Your task to perform on an android device: Go to privacy settings Image 0: 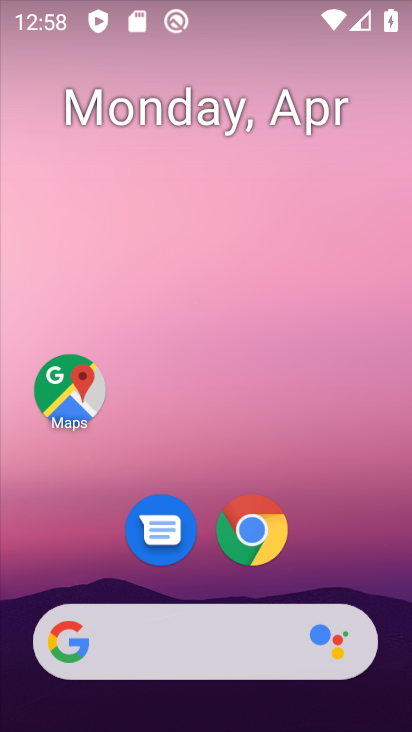
Step 0: click (253, 530)
Your task to perform on an android device: Go to privacy settings Image 1: 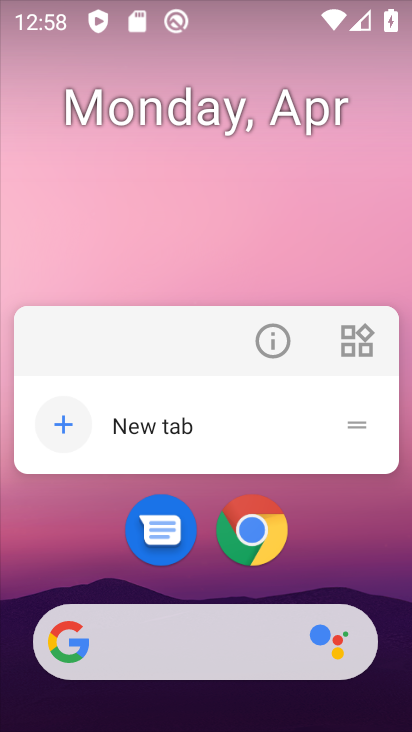
Step 1: click (261, 533)
Your task to perform on an android device: Go to privacy settings Image 2: 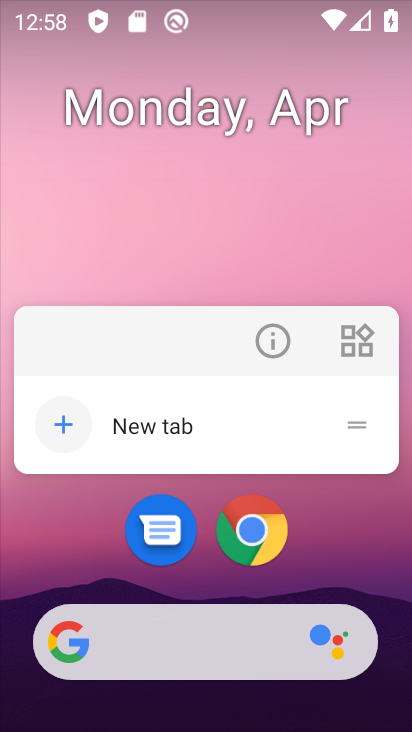
Step 2: click (260, 548)
Your task to perform on an android device: Go to privacy settings Image 3: 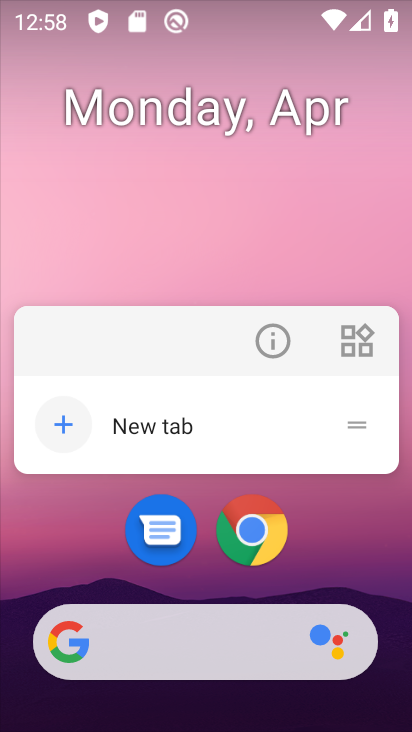
Step 3: click (268, 543)
Your task to perform on an android device: Go to privacy settings Image 4: 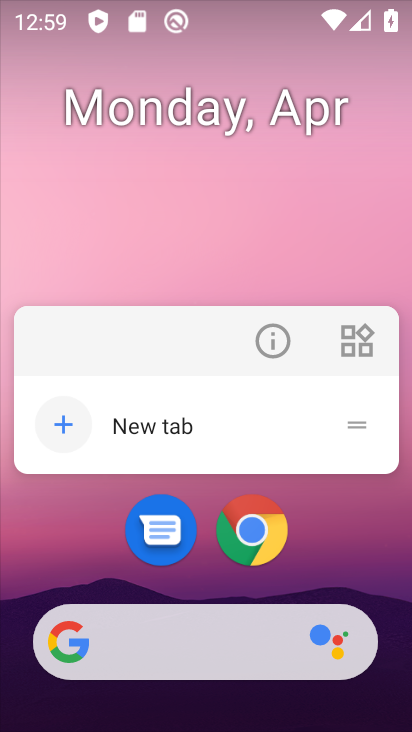
Step 4: click (267, 543)
Your task to perform on an android device: Go to privacy settings Image 5: 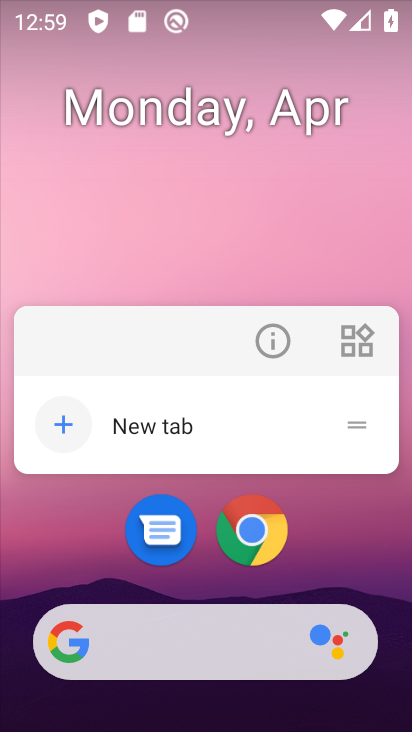
Step 5: click (267, 544)
Your task to perform on an android device: Go to privacy settings Image 6: 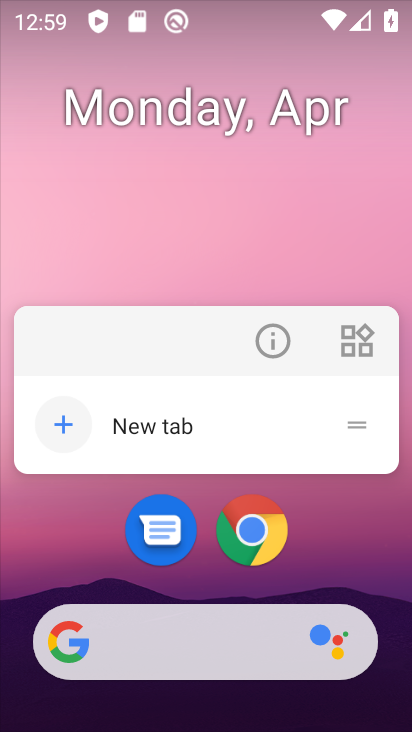
Step 6: click (265, 546)
Your task to perform on an android device: Go to privacy settings Image 7: 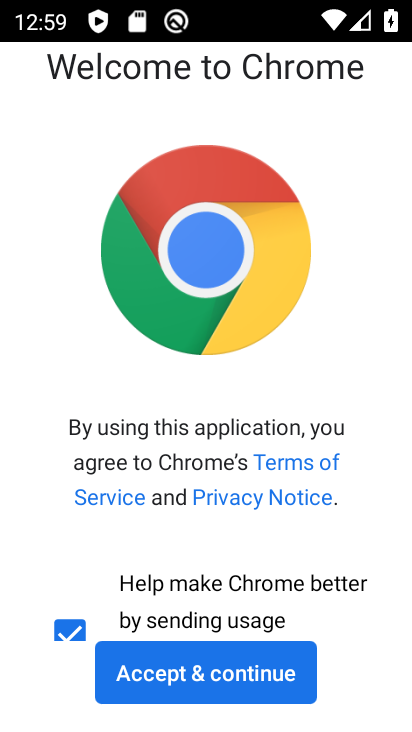
Step 7: click (247, 682)
Your task to perform on an android device: Go to privacy settings Image 8: 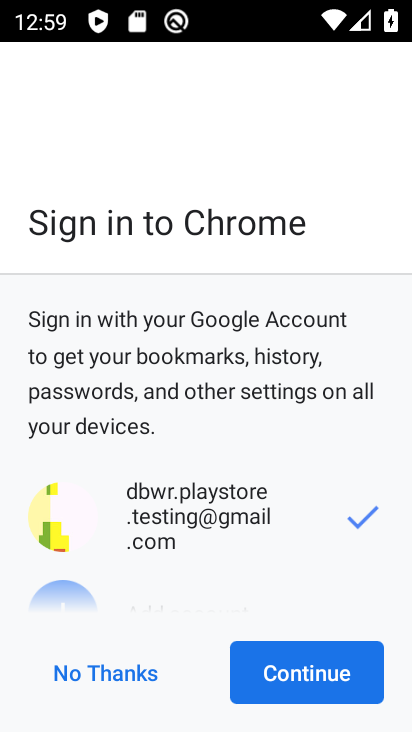
Step 8: click (331, 675)
Your task to perform on an android device: Go to privacy settings Image 9: 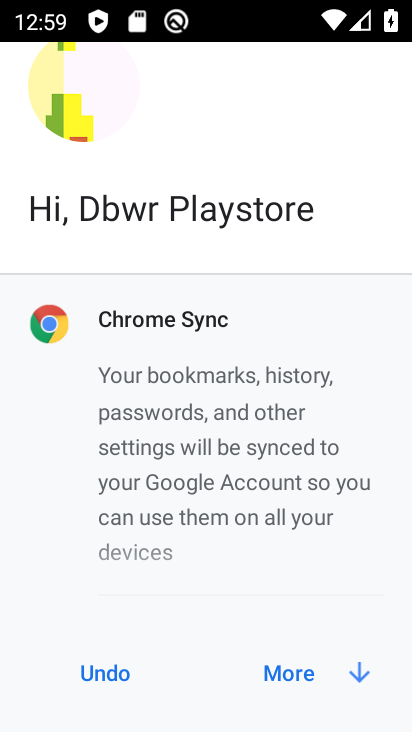
Step 9: click (303, 664)
Your task to perform on an android device: Go to privacy settings Image 10: 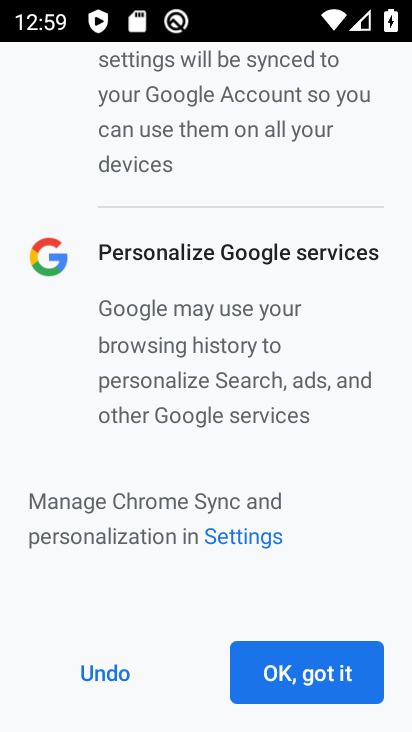
Step 10: click (304, 675)
Your task to perform on an android device: Go to privacy settings Image 11: 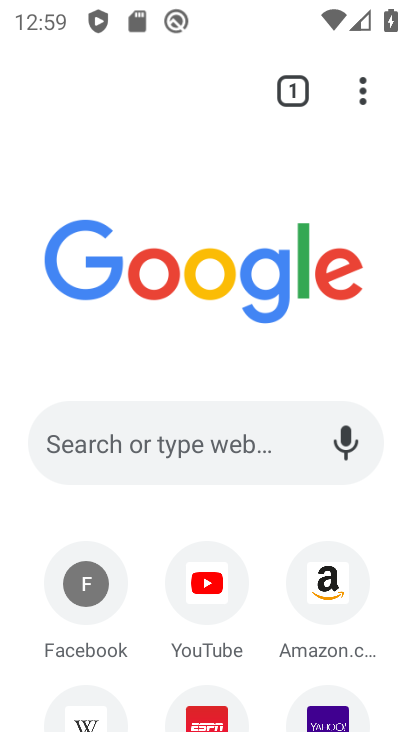
Step 11: drag from (365, 98) to (259, 582)
Your task to perform on an android device: Go to privacy settings Image 12: 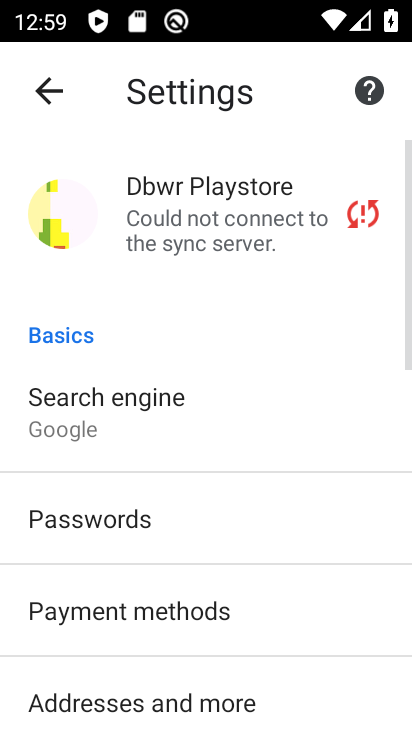
Step 12: drag from (158, 676) to (268, 249)
Your task to perform on an android device: Go to privacy settings Image 13: 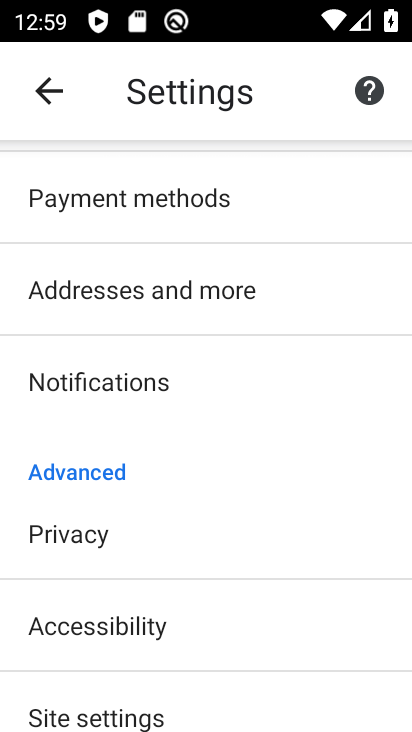
Step 13: click (134, 544)
Your task to perform on an android device: Go to privacy settings Image 14: 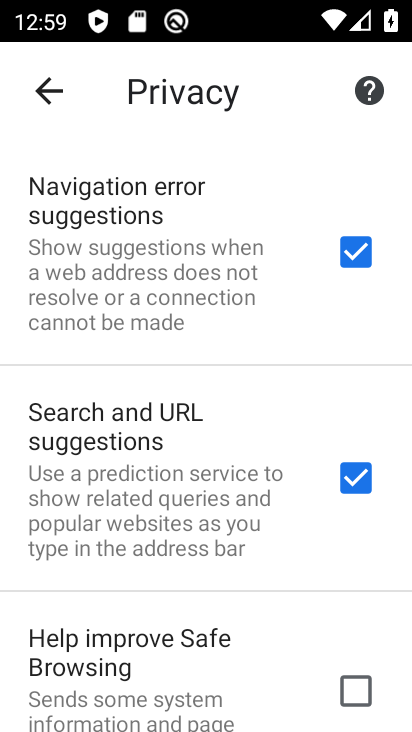
Step 14: task complete